Your task to perform on an android device: Open Amazon Image 0: 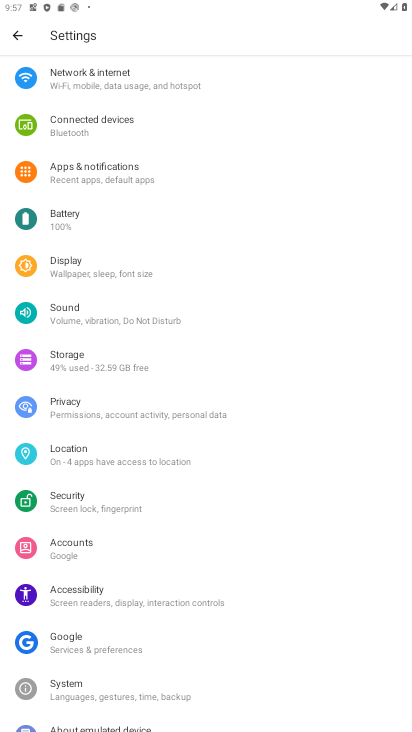
Step 0: press home button
Your task to perform on an android device: Open Amazon Image 1: 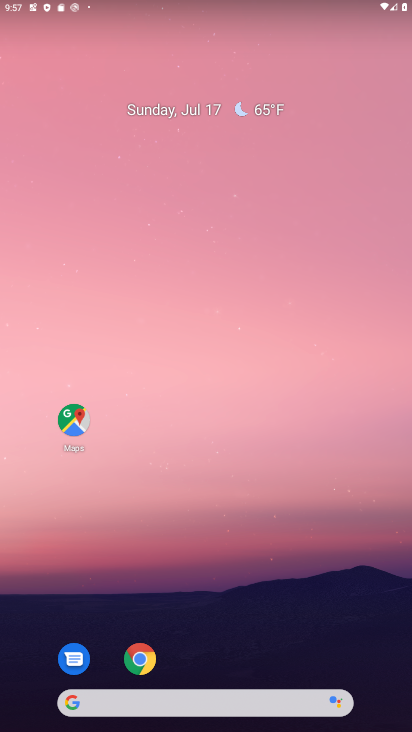
Step 1: click (147, 660)
Your task to perform on an android device: Open Amazon Image 2: 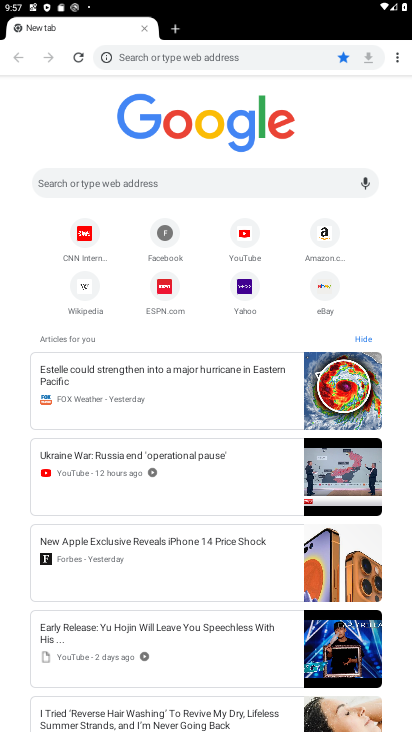
Step 2: click (319, 229)
Your task to perform on an android device: Open Amazon Image 3: 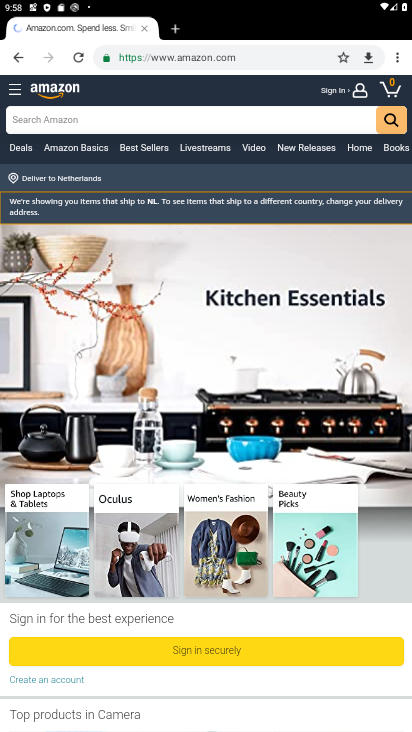
Step 3: task complete